Your task to perform on an android device: open sync settings in chrome Image 0: 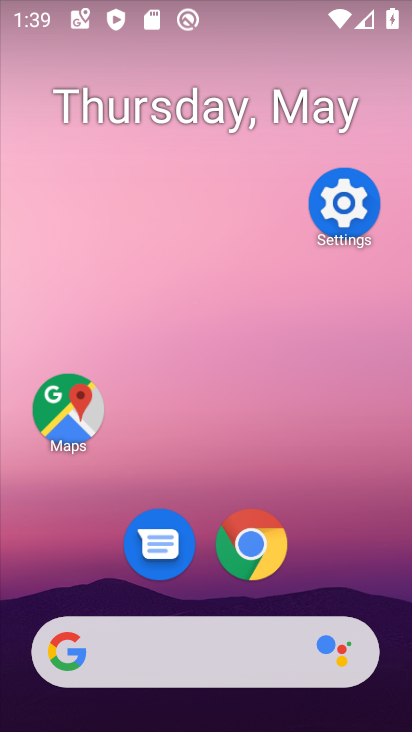
Step 0: click (260, 559)
Your task to perform on an android device: open sync settings in chrome Image 1: 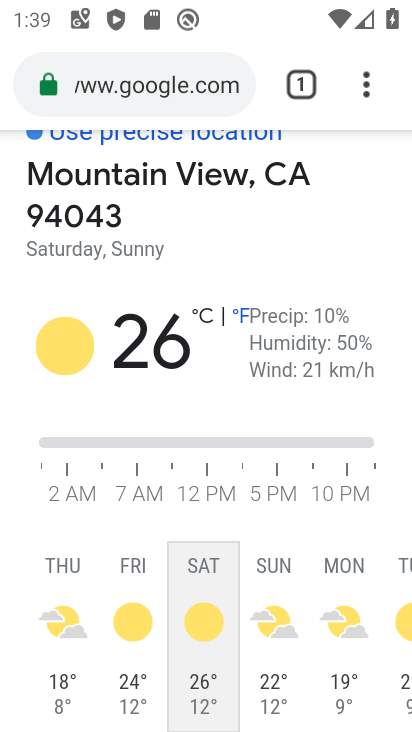
Step 1: drag from (372, 88) to (185, 598)
Your task to perform on an android device: open sync settings in chrome Image 2: 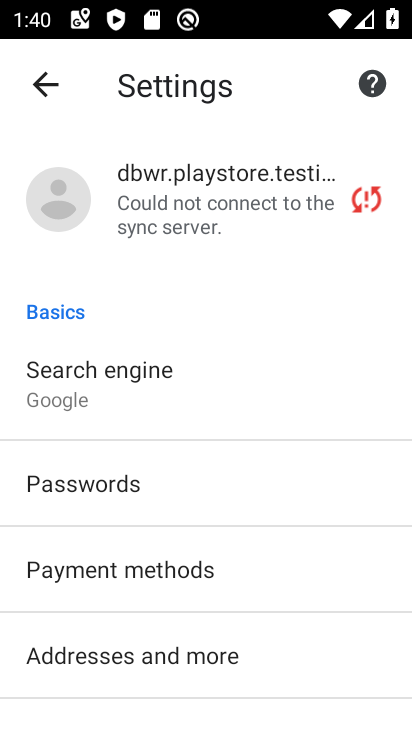
Step 2: drag from (124, 604) to (157, 279)
Your task to perform on an android device: open sync settings in chrome Image 3: 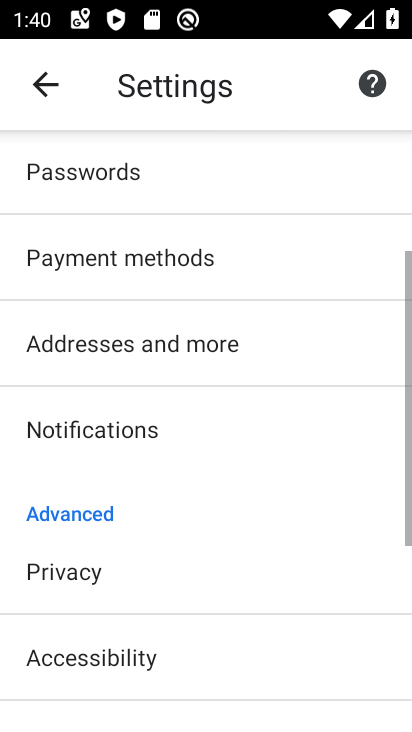
Step 3: drag from (161, 509) to (175, 285)
Your task to perform on an android device: open sync settings in chrome Image 4: 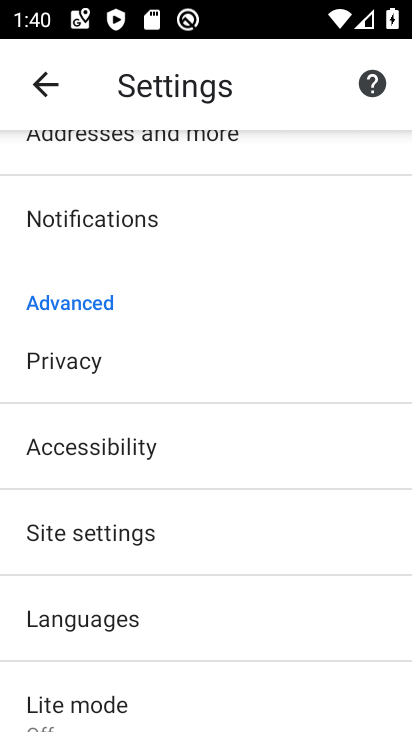
Step 4: drag from (132, 664) to (161, 483)
Your task to perform on an android device: open sync settings in chrome Image 5: 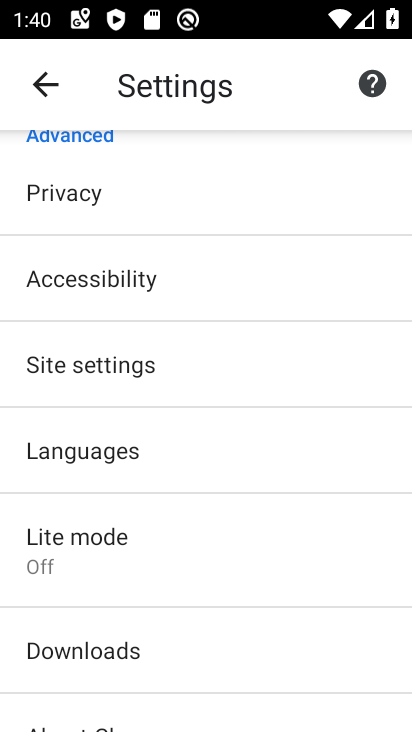
Step 5: click (110, 367)
Your task to perform on an android device: open sync settings in chrome Image 6: 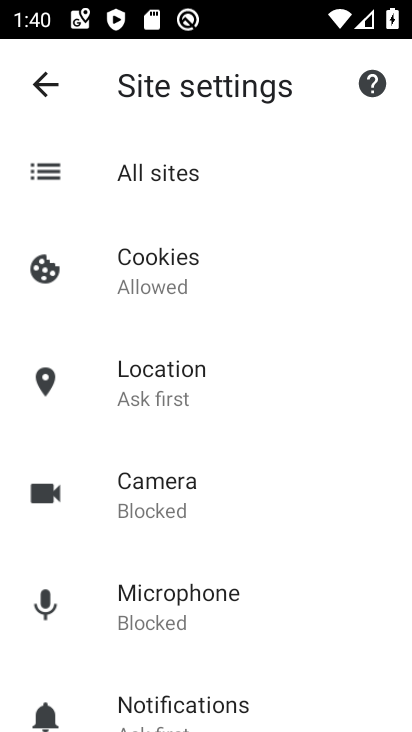
Step 6: drag from (255, 410) to (299, 177)
Your task to perform on an android device: open sync settings in chrome Image 7: 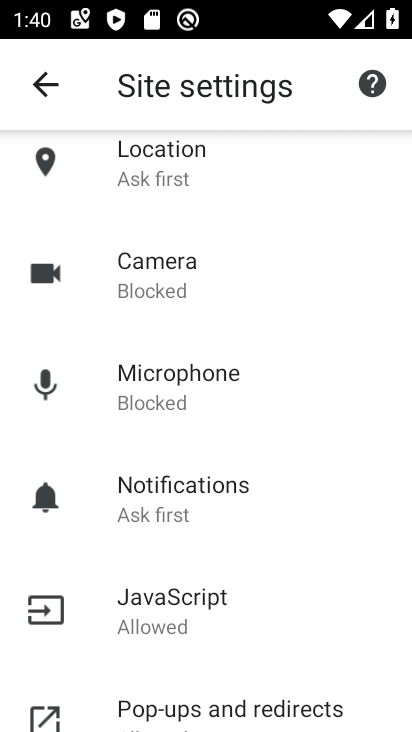
Step 7: drag from (210, 688) to (286, 233)
Your task to perform on an android device: open sync settings in chrome Image 8: 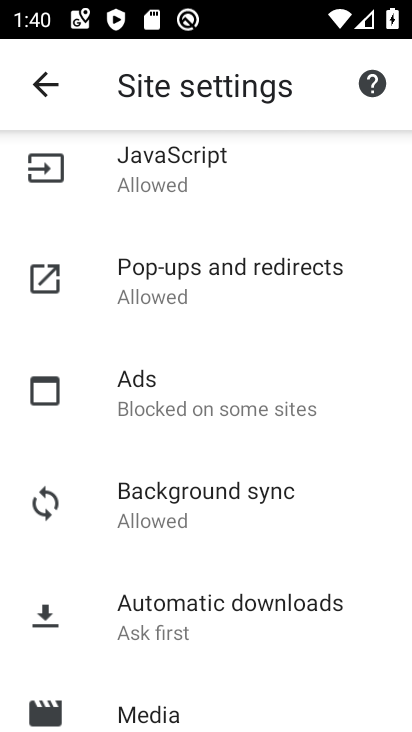
Step 8: click (204, 499)
Your task to perform on an android device: open sync settings in chrome Image 9: 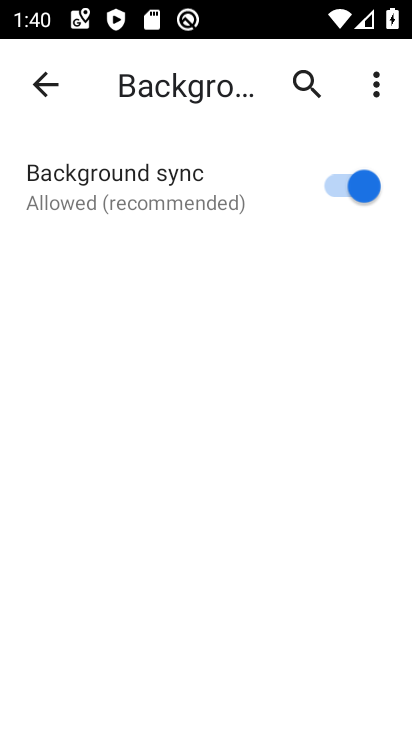
Step 9: task complete